Your task to perform on an android device: Open calendar and show me the second week of next month Image 0: 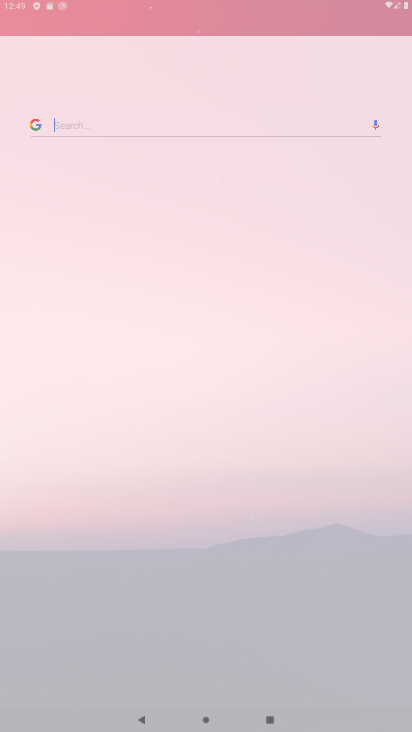
Step 0: click (135, 651)
Your task to perform on an android device: Open calendar and show me the second week of next month Image 1: 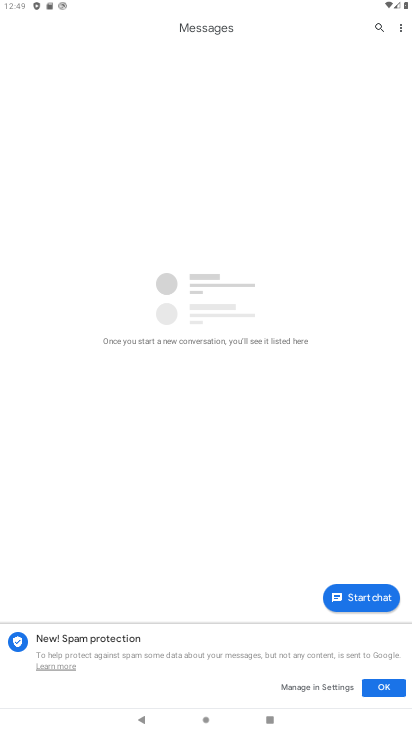
Step 1: press home button
Your task to perform on an android device: Open calendar and show me the second week of next month Image 2: 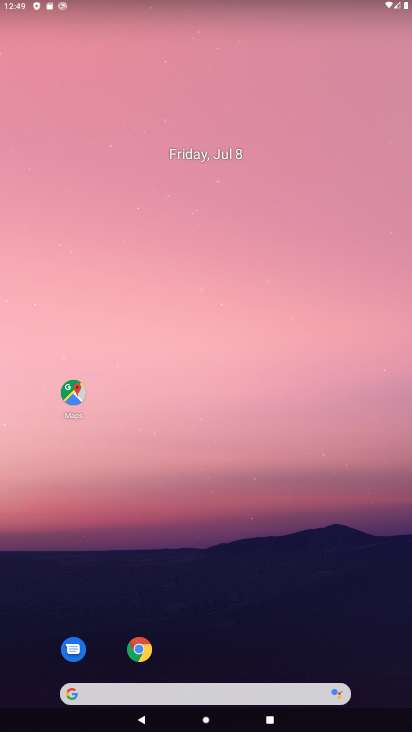
Step 2: click (151, 647)
Your task to perform on an android device: Open calendar and show me the second week of next month Image 3: 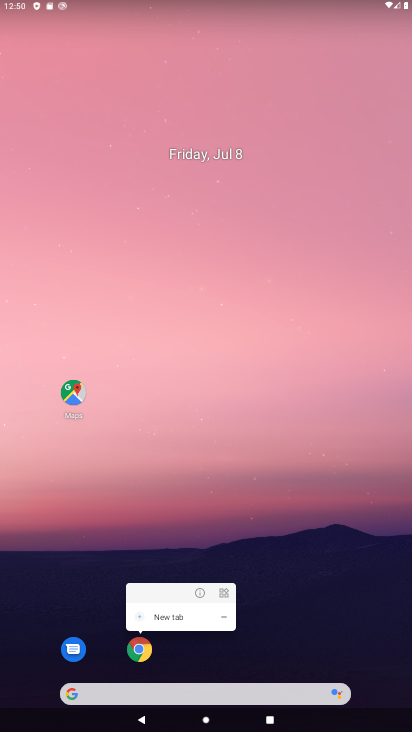
Step 3: drag from (19, 720) to (312, 40)
Your task to perform on an android device: Open calendar and show me the second week of next month Image 4: 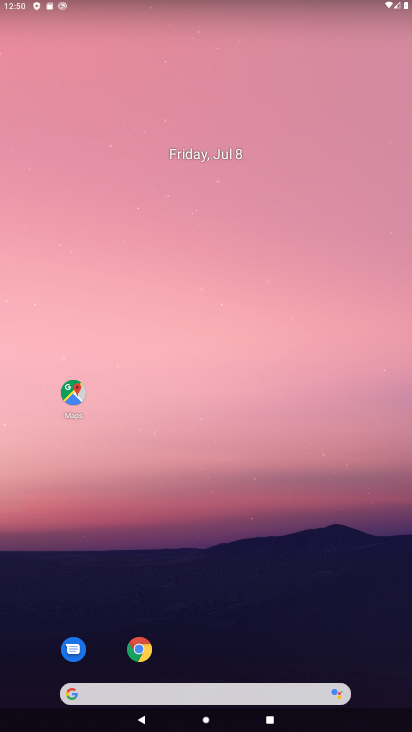
Step 4: drag from (54, 639) to (245, 110)
Your task to perform on an android device: Open calendar and show me the second week of next month Image 5: 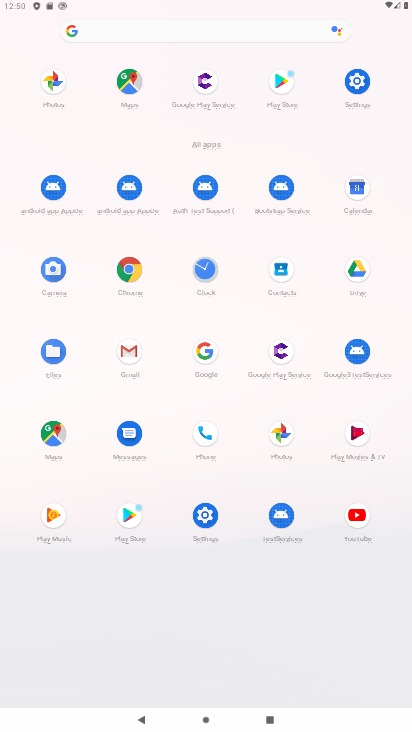
Step 5: click (356, 195)
Your task to perform on an android device: Open calendar and show me the second week of next month Image 6: 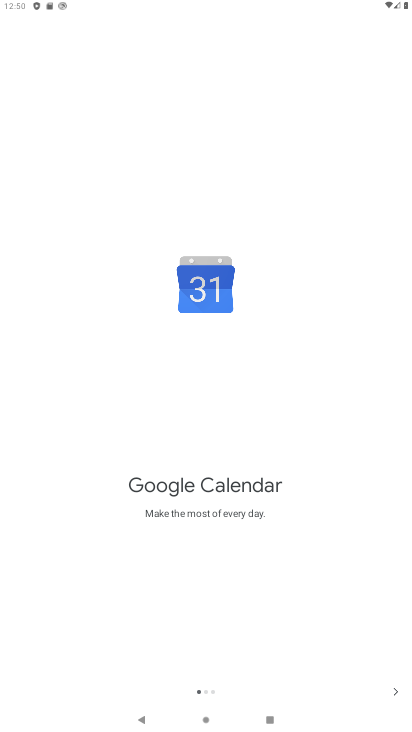
Step 6: click (399, 693)
Your task to perform on an android device: Open calendar and show me the second week of next month Image 7: 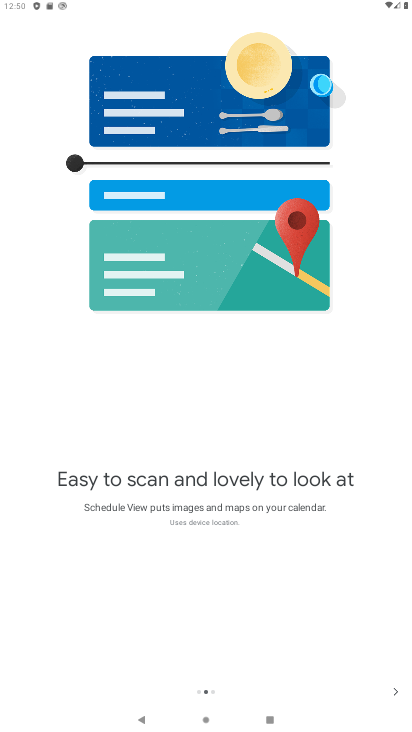
Step 7: click (391, 697)
Your task to perform on an android device: Open calendar and show me the second week of next month Image 8: 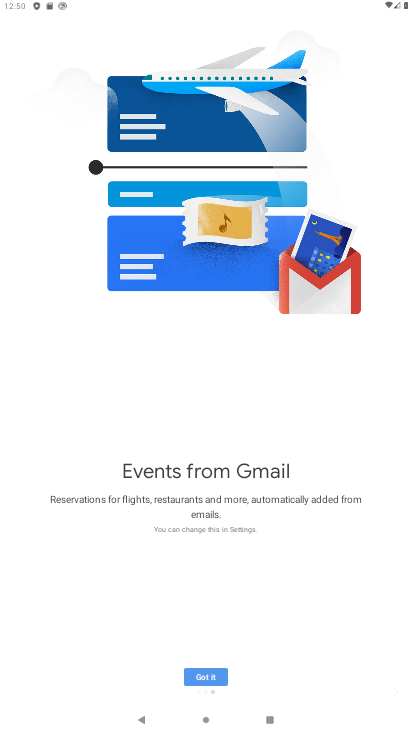
Step 8: click (391, 689)
Your task to perform on an android device: Open calendar and show me the second week of next month Image 9: 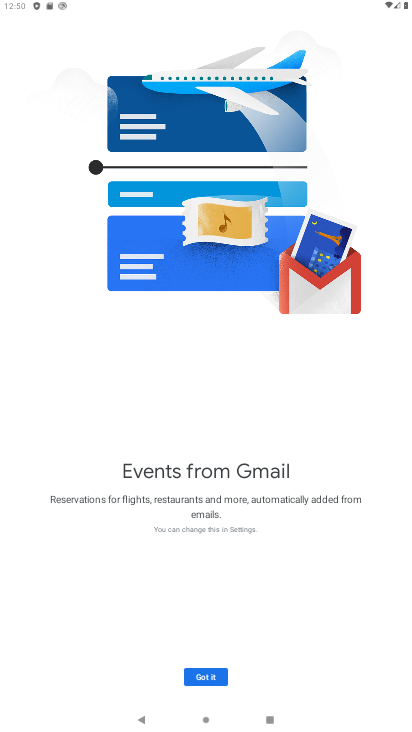
Step 9: click (199, 673)
Your task to perform on an android device: Open calendar and show me the second week of next month Image 10: 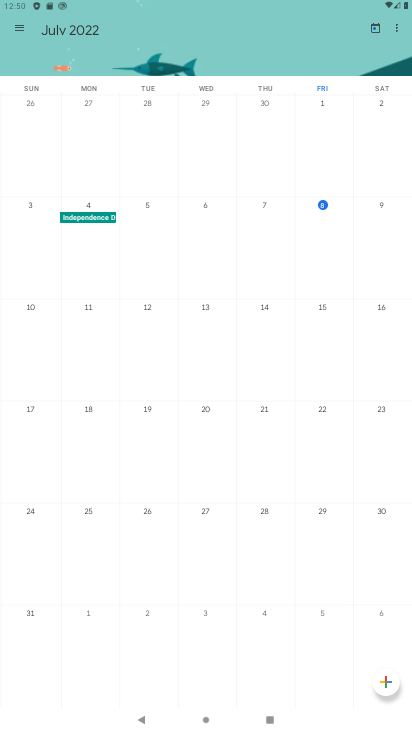
Step 10: drag from (341, 253) to (14, 300)
Your task to perform on an android device: Open calendar and show me the second week of next month Image 11: 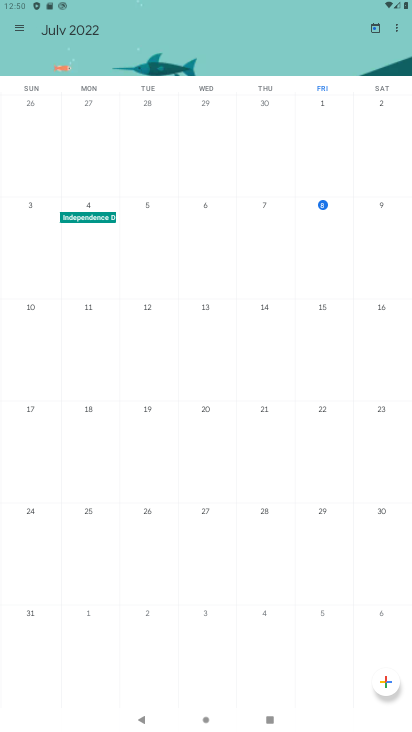
Step 11: drag from (306, 348) to (6, 293)
Your task to perform on an android device: Open calendar and show me the second week of next month Image 12: 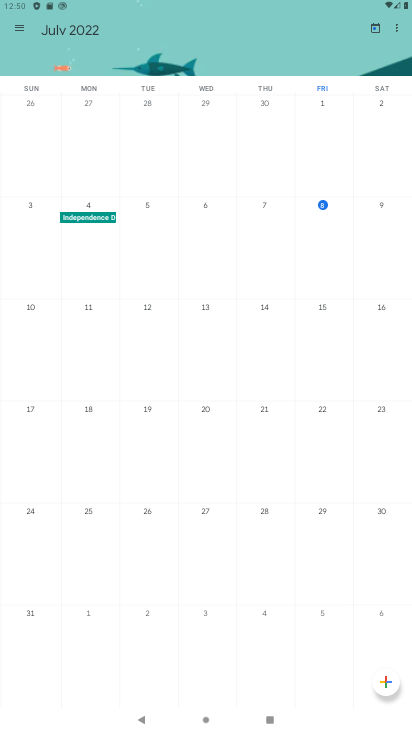
Step 12: click (53, 27)
Your task to perform on an android device: Open calendar and show me the second week of next month Image 13: 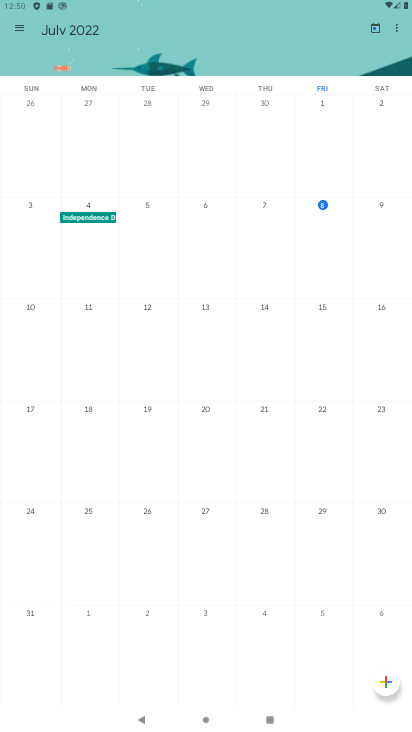
Step 13: drag from (361, 197) to (1, 390)
Your task to perform on an android device: Open calendar and show me the second week of next month Image 14: 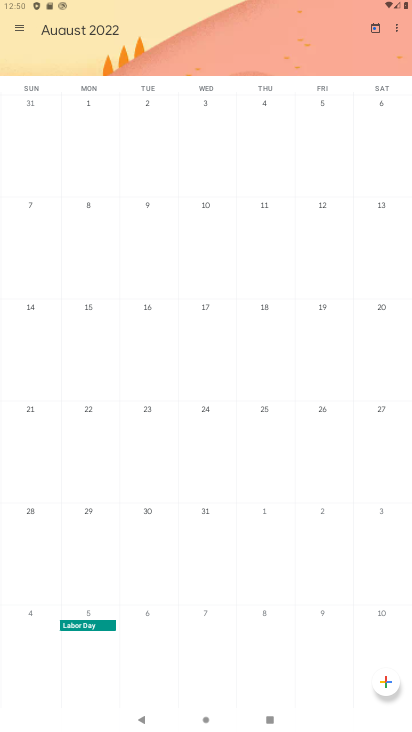
Step 14: click (84, 218)
Your task to perform on an android device: Open calendar and show me the second week of next month Image 15: 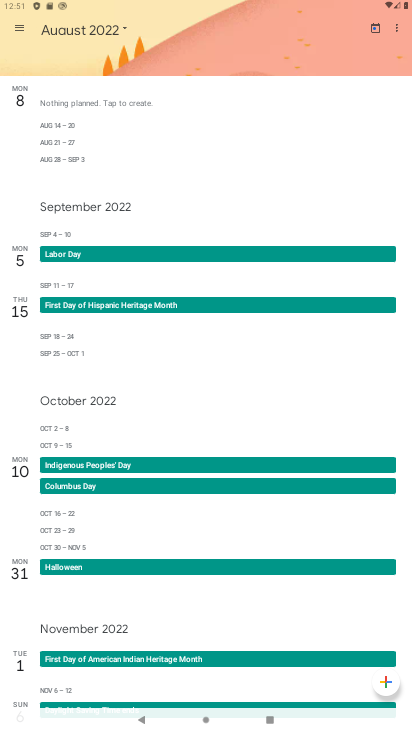
Step 15: task complete